Your task to perform on an android device: Search for vegetarian restaurants on Maps Image 0: 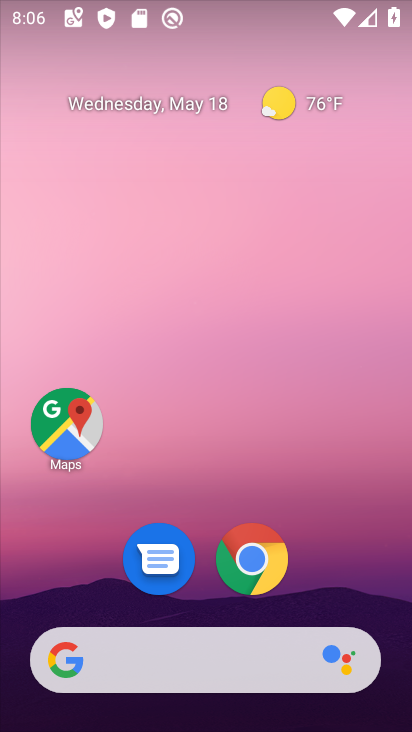
Step 0: click (37, 424)
Your task to perform on an android device: Search for vegetarian restaurants on Maps Image 1: 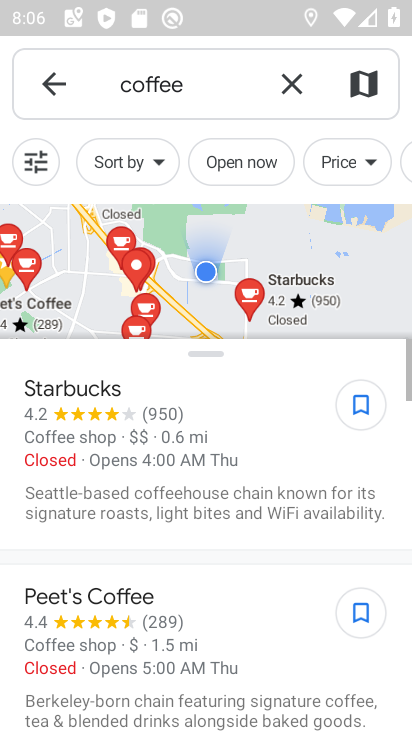
Step 1: click (282, 82)
Your task to perform on an android device: Search for vegetarian restaurants on Maps Image 2: 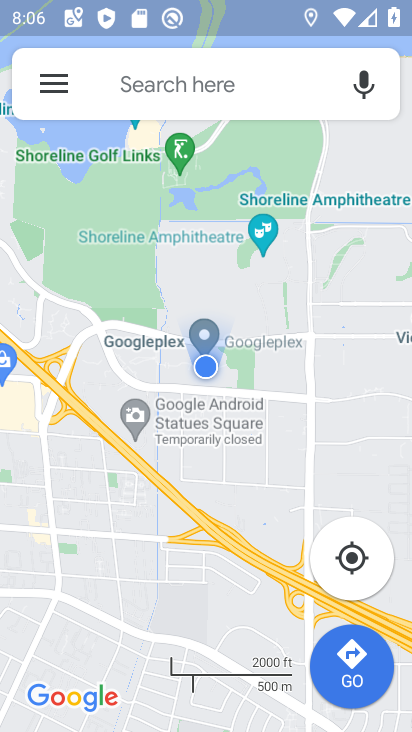
Step 2: click (159, 98)
Your task to perform on an android device: Search for vegetarian restaurants on Maps Image 3: 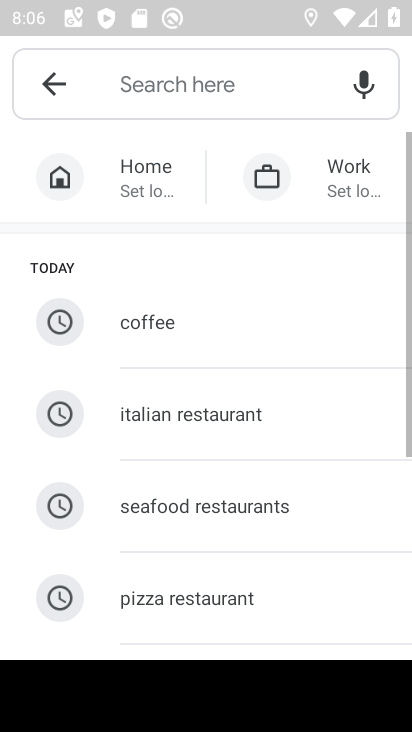
Step 3: drag from (244, 570) to (233, 184)
Your task to perform on an android device: Search for vegetarian restaurants on Maps Image 4: 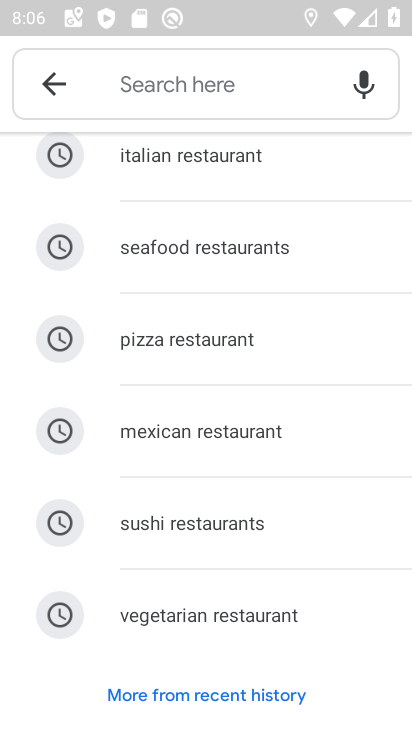
Step 4: click (239, 614)
Your task to perform on an android device: Search for vegetarian restaurants on Maps Image 5: 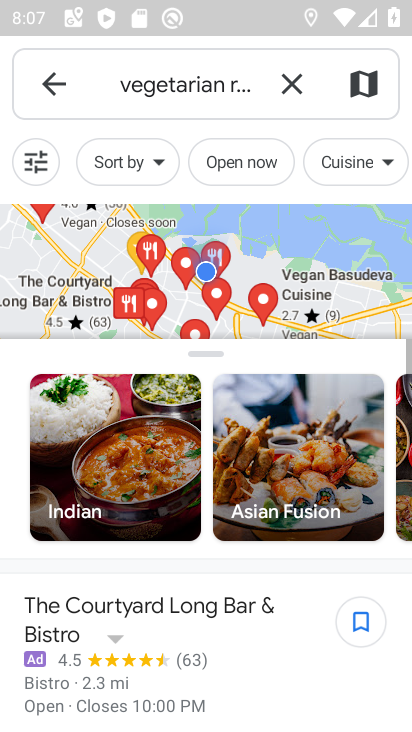
Step 5: task complete